Your task to perform on an android device: clear history in the chrome app Image 0: 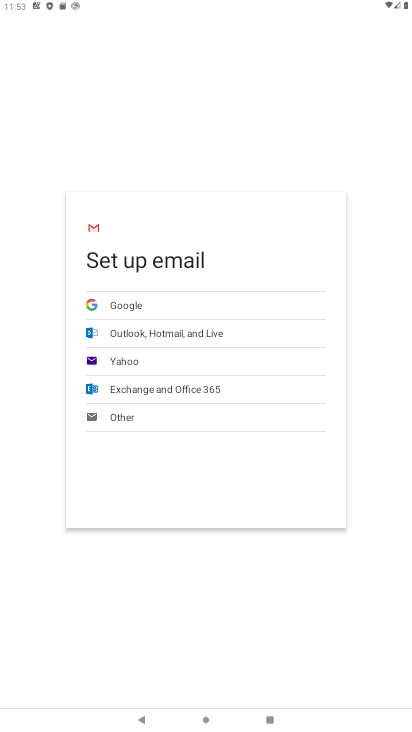
Step 0: press home button
Your task to perform on an android device: clear history in the chrome app Image 1: 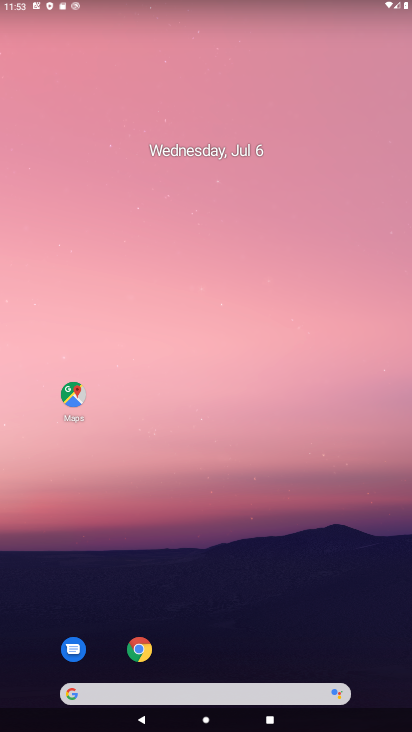
Step 1: click (140, 656)
Your task to perform on an android device: clear history in the chrome app Image 2: 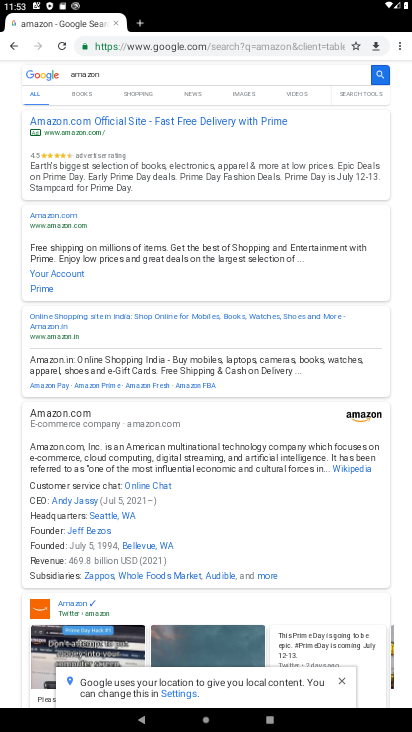
Step 2: click (392, 45)
Your task to perform on an android device: clear history in the chrome app Image 3: 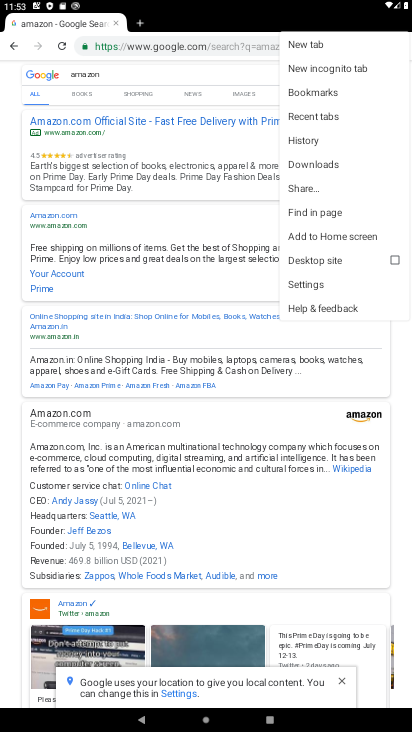
Step 3: click (315, 132)
Your task to perform on an android device: clear history in the chrome app Image 4: 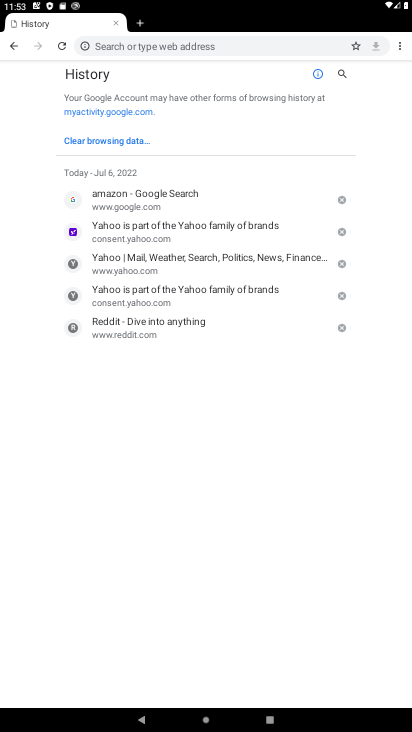
Step 4: click (100, 141)
Your task to perform on an android device: clear history in the chrome app Image 5: 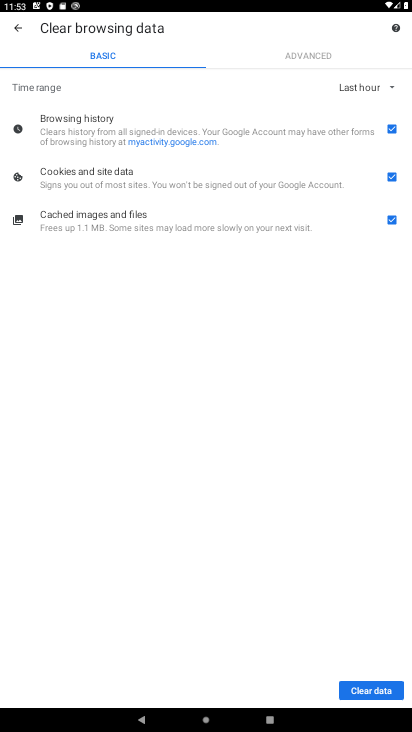
Step 5: click (363, 686)
Your task to perform on an android device: clear history in the chrome app Image 6: 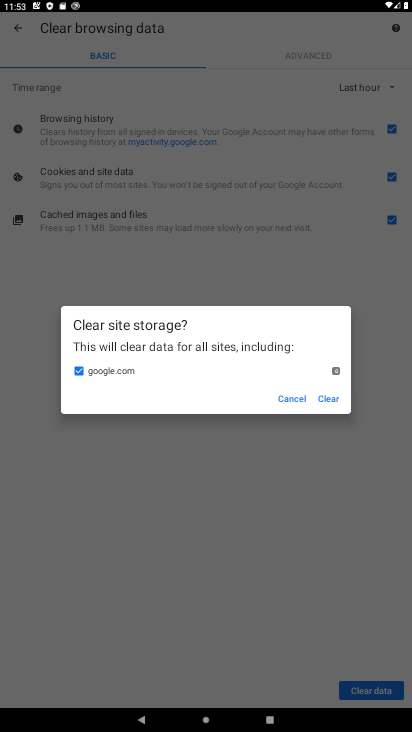
Step 6: click (330, 399)
Your task to perform on an android device: clear history in the chrome app Image 7: 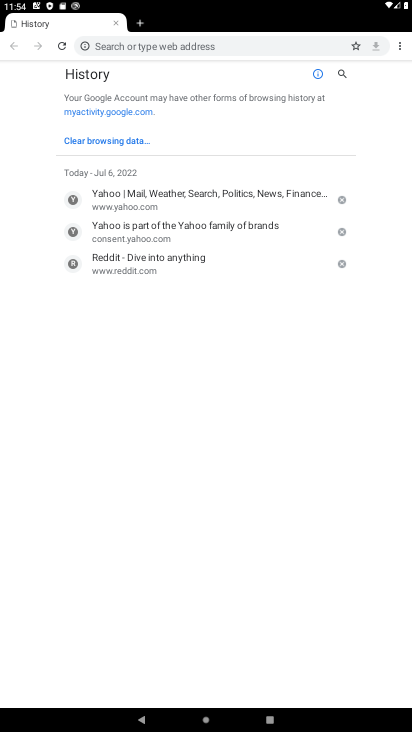
Step 7: click (99, 139)
Your task to perform on an android device: clear history in the chrome app Image 8: 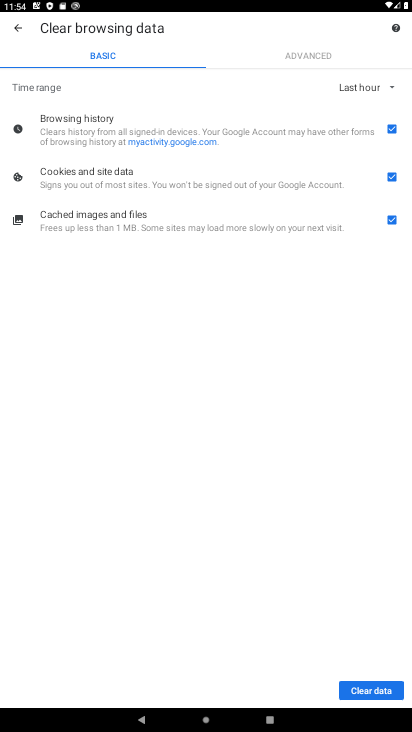
Step 8: click (357, 690)
Your task to perform on an android device: clear history in the chrome app Image 9: 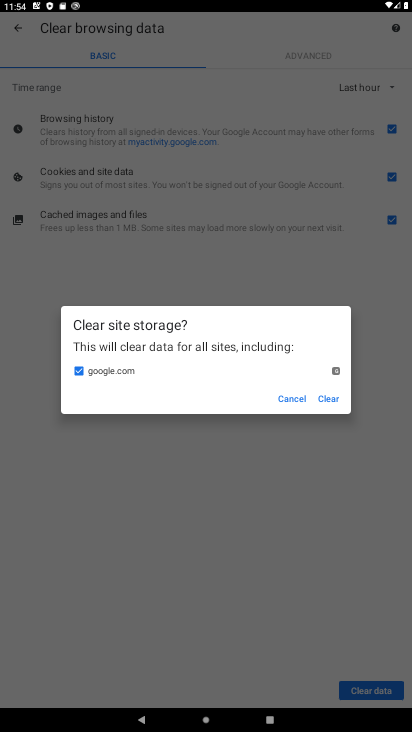
Step 9: click (333, 396)
Your task to perform on an android device: clear history in the chrome app Image 10: 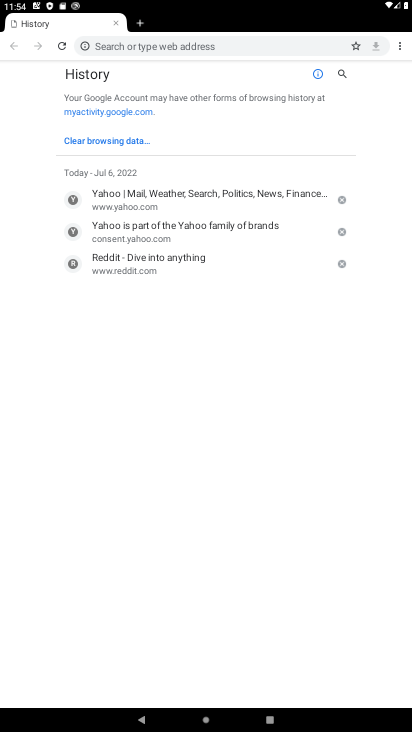
Step 10: task complete